Your task to perform on an android device: Go to battery settings Image 0: 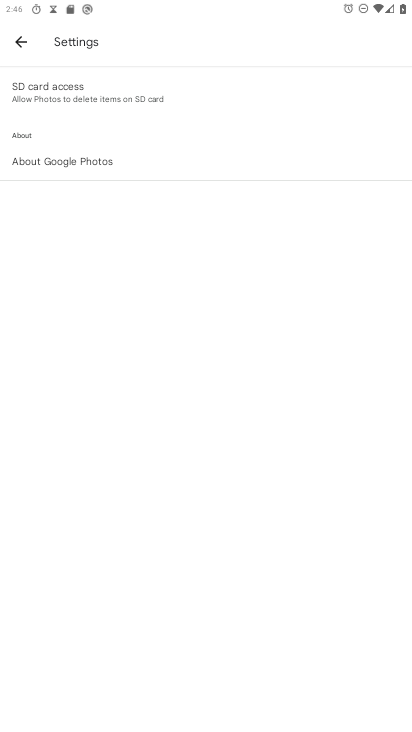
Step 0: press home button
Your task to perform on an android device: Go to battery settings Image 1: 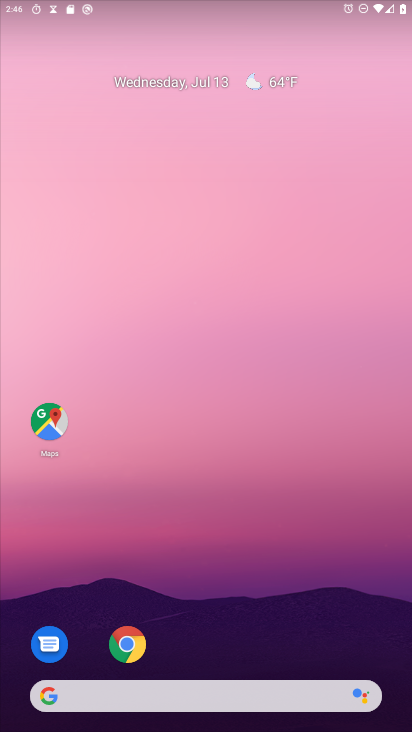
Step 1: drag from (269, 588) to (276, 107)
Your task to perform on an android device: Go to battery settings Image 2: 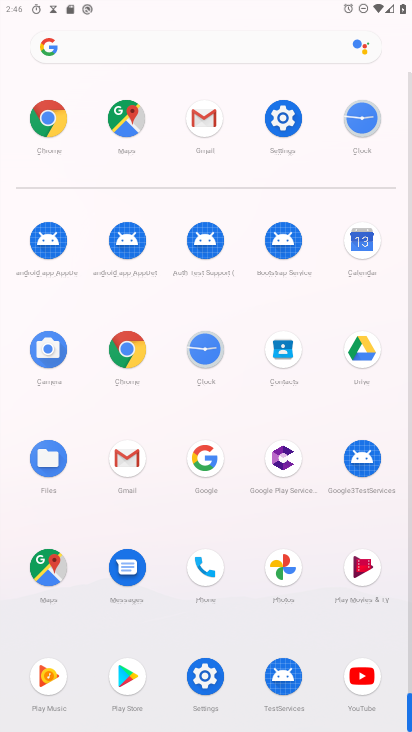
Step 2: click (287, 121)
Your task to perform on an android device: Go to battery settings Image 3: 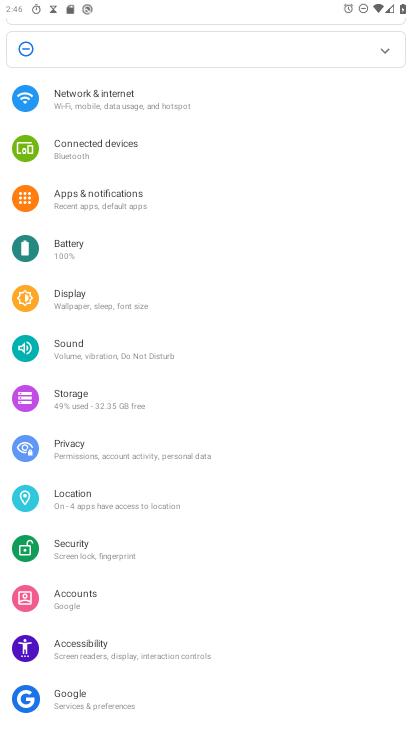
Step 3: click (74, 251)
Your task to perform on an android device: Go to battery settings Image 4: 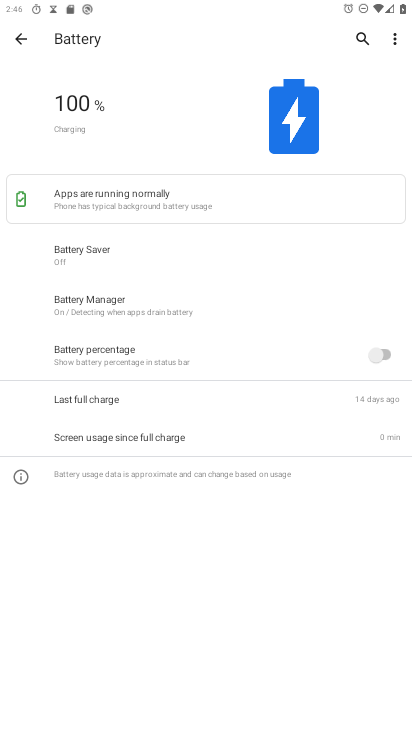
Step 4: task complete